Your task to perform on an android device: Open location settings Image 0: 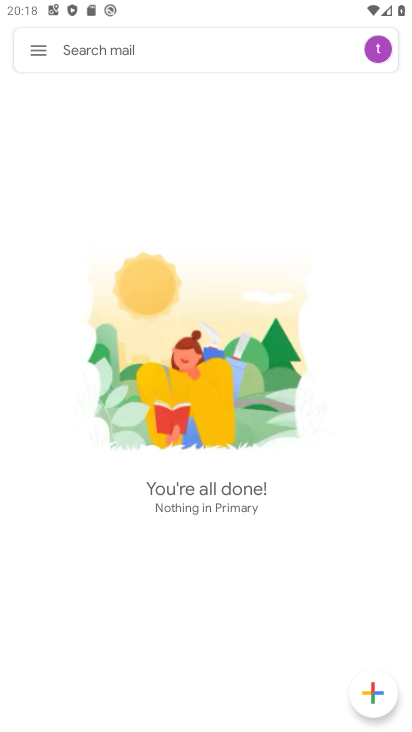
Step 0: press home button
Your task to perform on an android device: Open location settings Image 1: 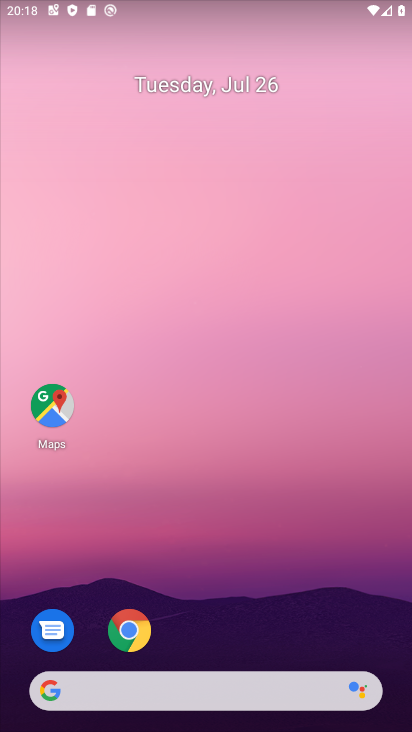
Step 1: drag from (358, 597) to (352, 113)
Your task to perform on an android device: Open location settings Image 2: 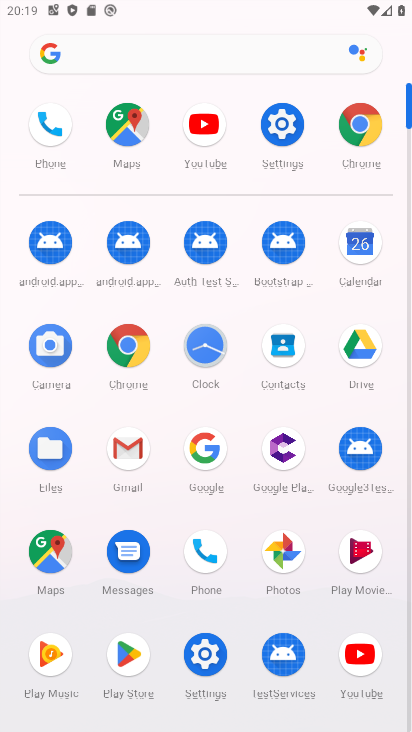
Step 2: click (276, 134)
Your task to perform on an android device: Open location settings Image 3: 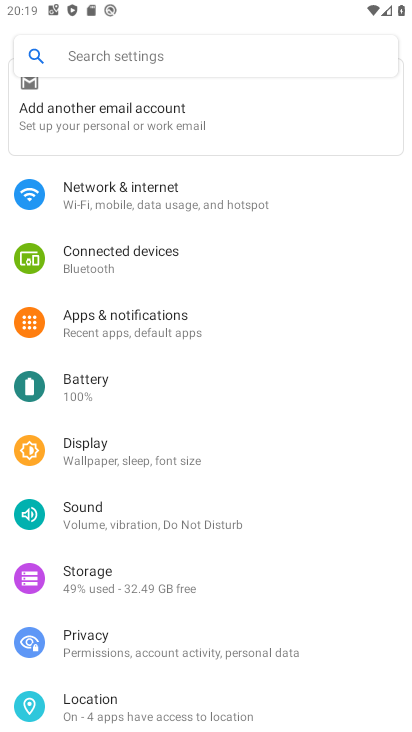
Step 3: drag from (268, 364) to (278, 305)
Your task to perform on an android device: Open location settings Image 4: 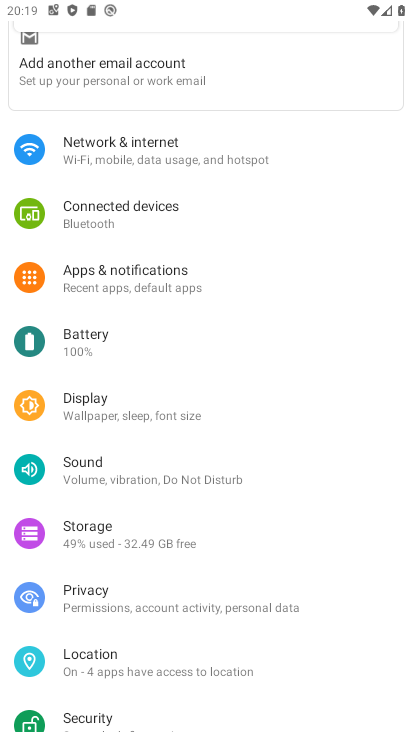
Step 4: drag from (318, 494) to (319, 405)
Your task to perform on an android device: Open location settings Image 5: 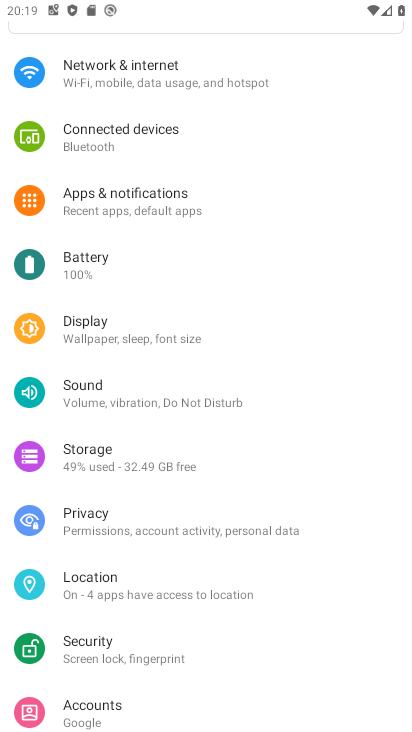
Step 5: drag from (328, 576) to (328, 509)
Your task to perform on an android device: Open location settings Image 6: 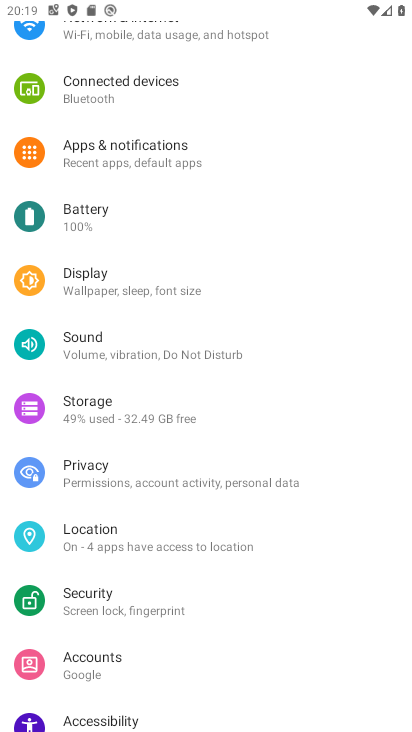
Step 6: drag from (312, 590) to (317, 496)
Your task to perform on an android device: Open location settings Image 7: 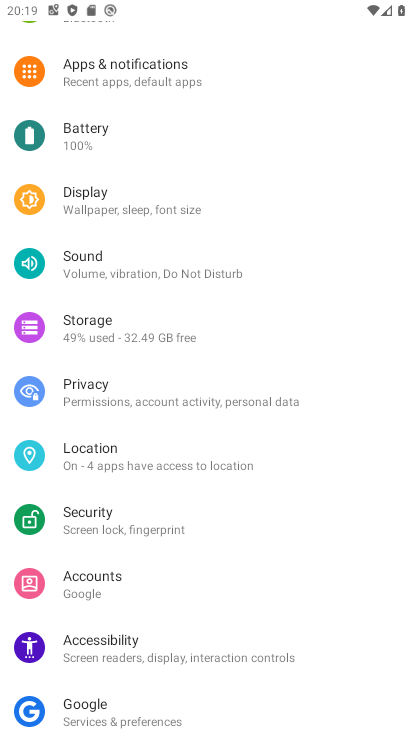
Step 7: drag from (345, 591) to (344, 512)
Your task to perform on an android device: Open location settings Image 8: 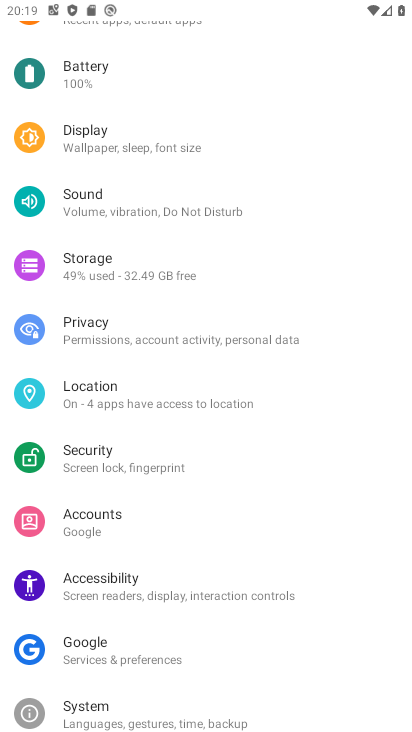
Step 8: drag from (332, 605) to (329, 426)
Your task to perform on an android device: Open location settings Image 9: 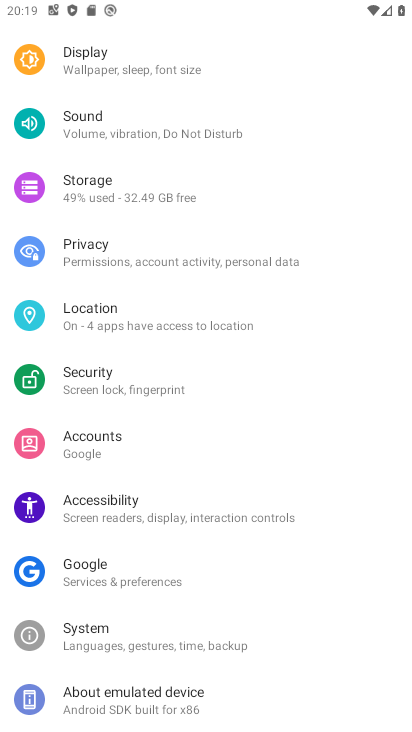
Step 9: click (244, 312)
Your task to perform on an android device: Open location settings Image 10: 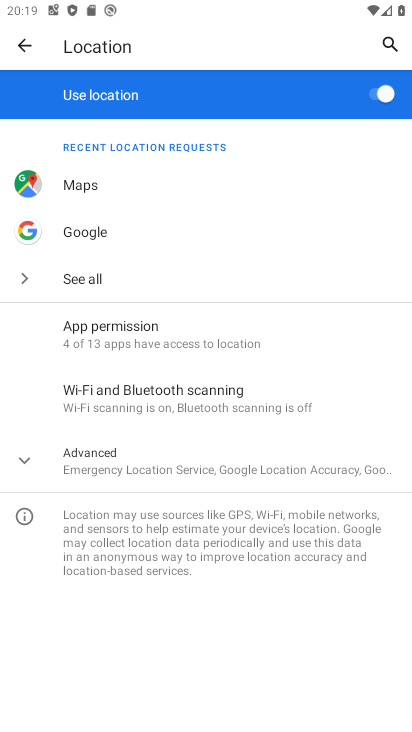
Step 10: task complete